Your task to perform on an android device: Show me popular games on the Play Store Image 0: 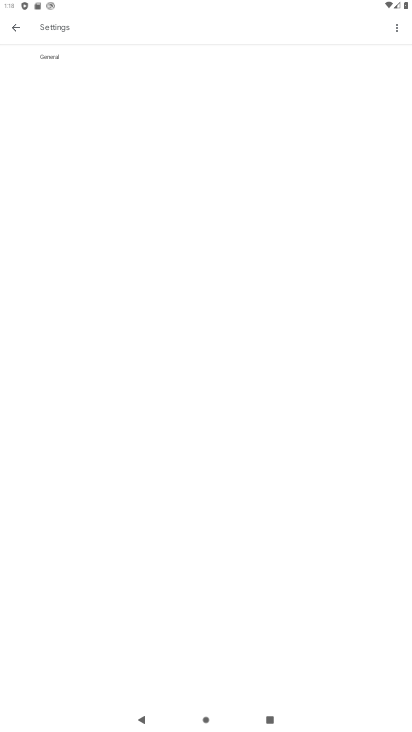
Step 0: press home button
Your task to perform on an android device: Show me popular games on the Play Store Image 1: 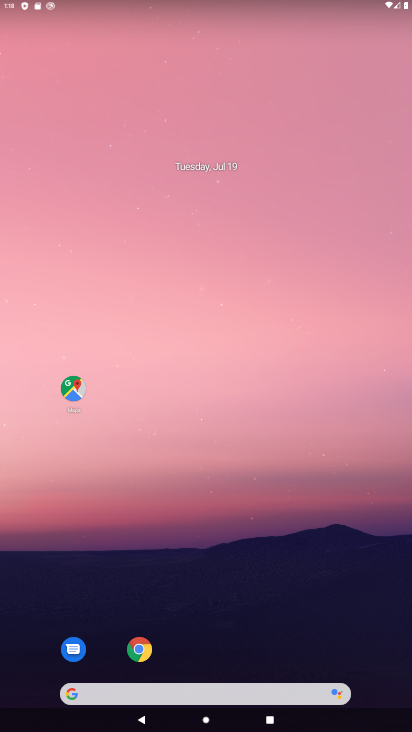
Step 1: drag from (216, 656) to (173, 172)
Your task to perform on an android device: Show me popular games on the Play Store Image 2: 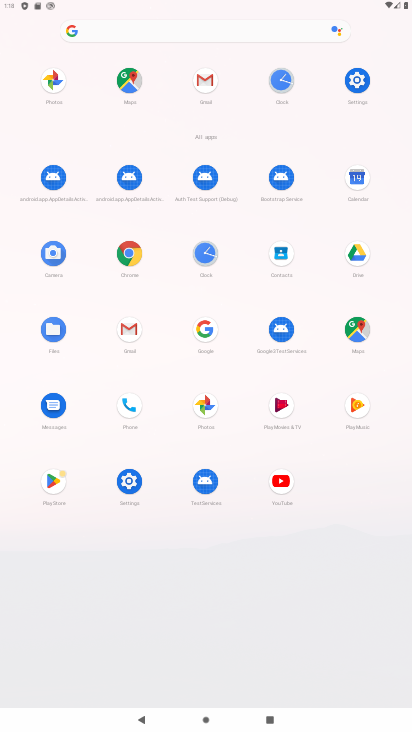
Step 2: click (55, 482)
Your task to perform on an android device: Show me popular games on the Play Store Image 3: 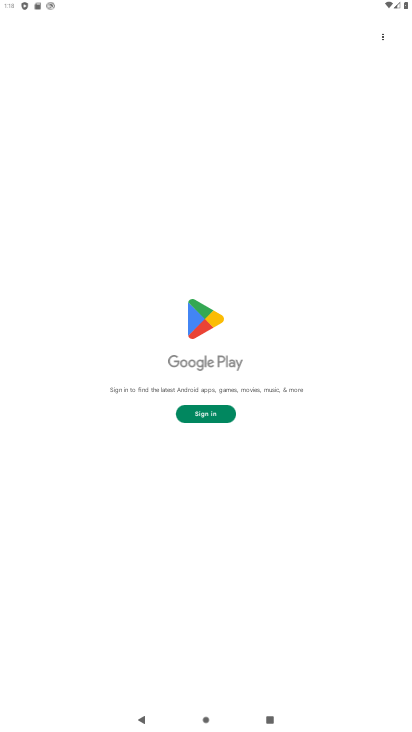
Step 3: click (206, 410)
Your task to perform on an android device: Show me popular games on the Play Store Image 4: 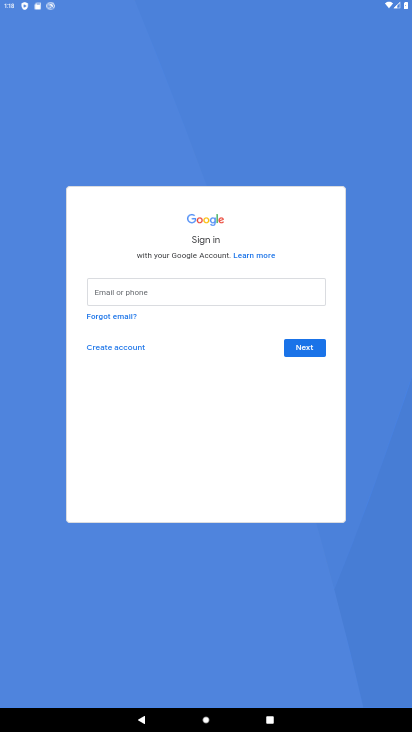
Step 4: task complete